Your task to perform on an android device: Open Chrome and go to settings Image 0: 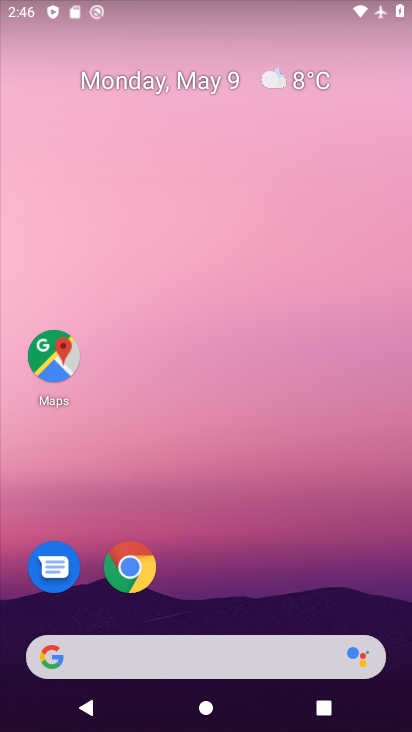
Step 0: drag from (237, 556) to (201, 0)
Your task to perform on an android device: Open Chrome and go to settings Image 1: 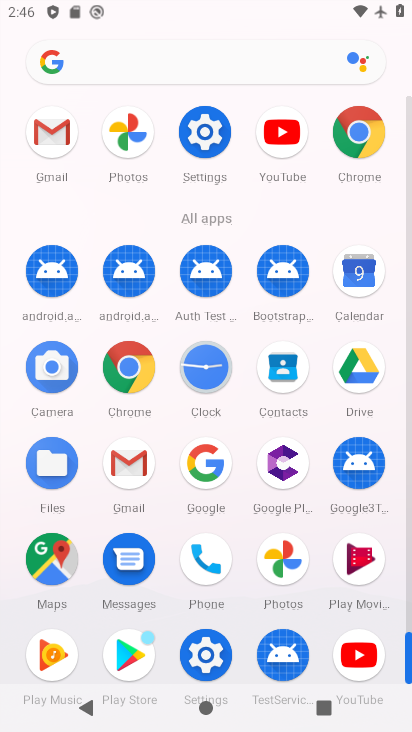
Step 1: drag from (13, 589) to (0, 263)
Your task to perform on an android device: Open Chrome and go to settings Image 2: 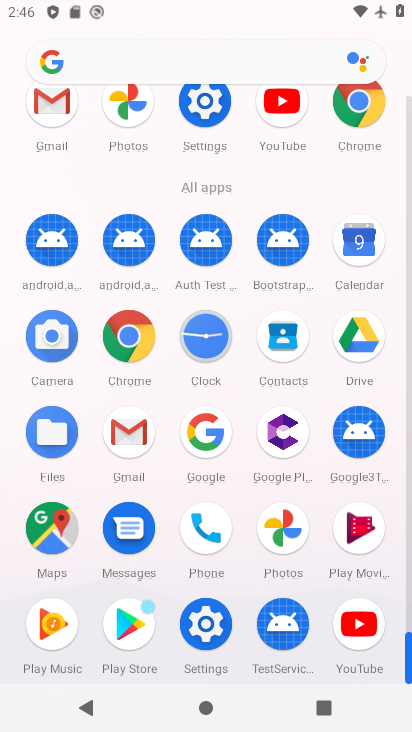
Step 2: click (126, 336)
Your task to perform on an android device: Open Chrome and go to settings Image 3: 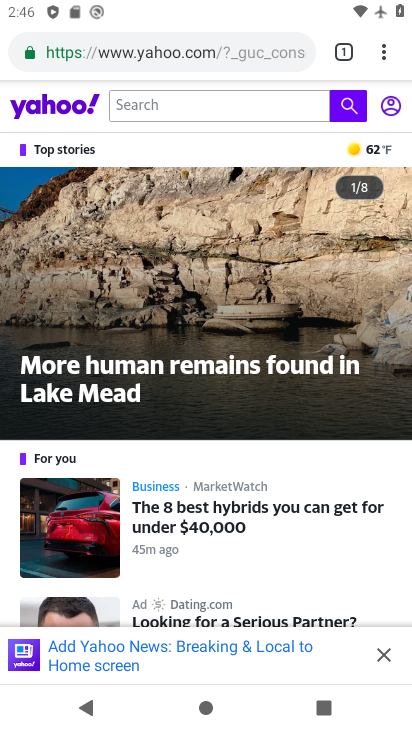
Step 3: task complete